Your task to perform on an android device: turn off sleep mode Image 0: 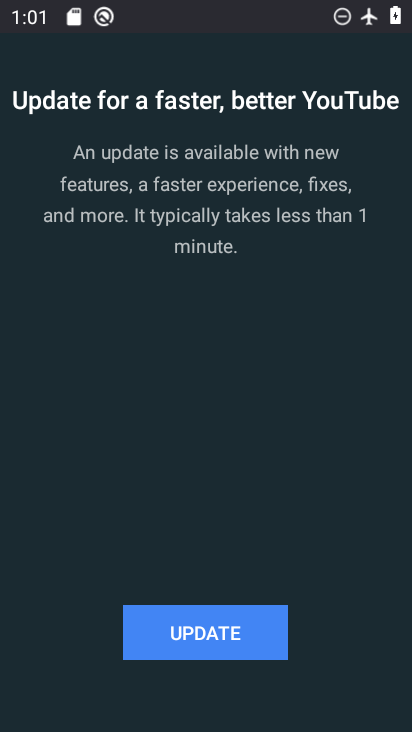
Step 0: press home button
Your task to perform on an android device: turn off sleep mode Image 1: 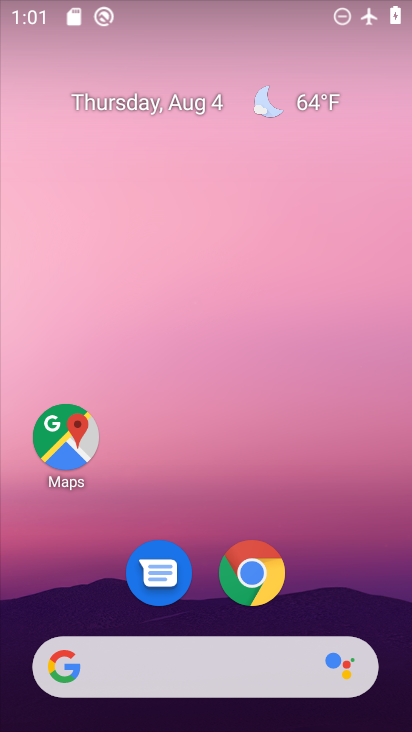
Step 1: drag from (320, 555) to (338, 153)
Your task to perform on an android device: turn off sleep mode Image 2: 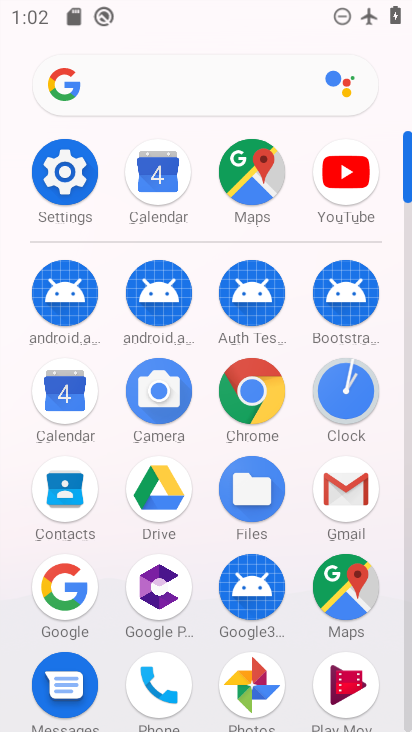
Step 2: click (59, 168)
Your task to perform on an android device: turn off sleep mode Image 3: 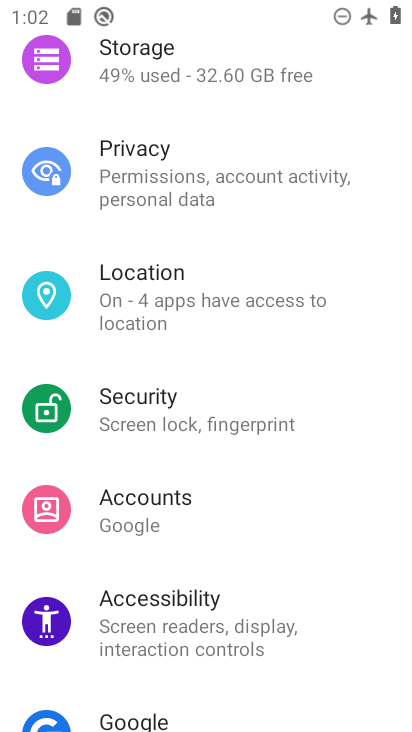
Step 3: drag from (272, 112) to (227, 445)
Your task to perform on an android device: turn off sleep mode Image 4: 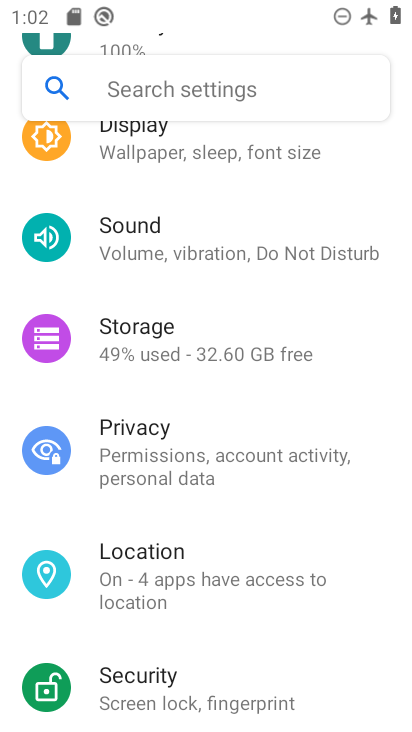
Step 4: drag from (241, 196) to (236, 506)
Your task to perform on an android device: turn off sleep mode Image 5: 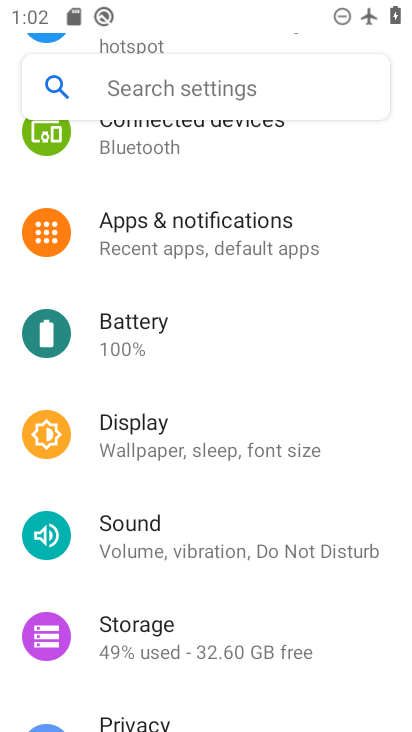
Step 5: drag from (234, 203) to (219, 480)
Your task to perform on an android device: turn off sleep mode Image 6: 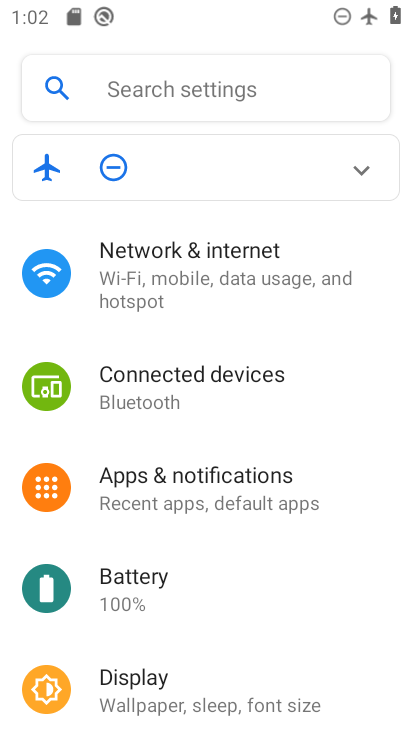
Step 6: click (151, 680)
Your task to perform on an android device: turn off sleep mode Image 7: 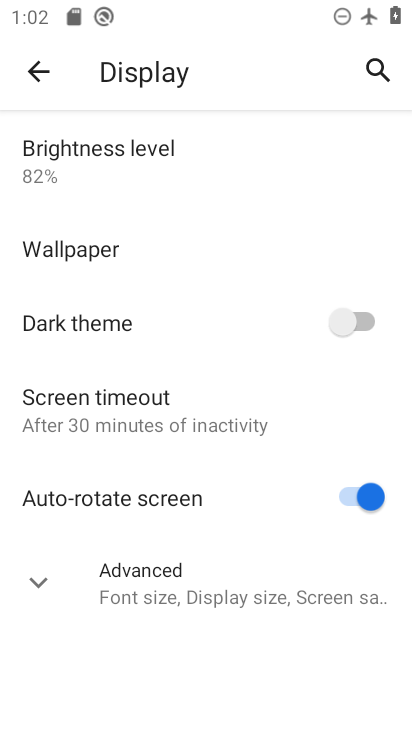
Step 7: click (252, 420)
Your task to perform on an android device: turn off sleep mode Image 8: 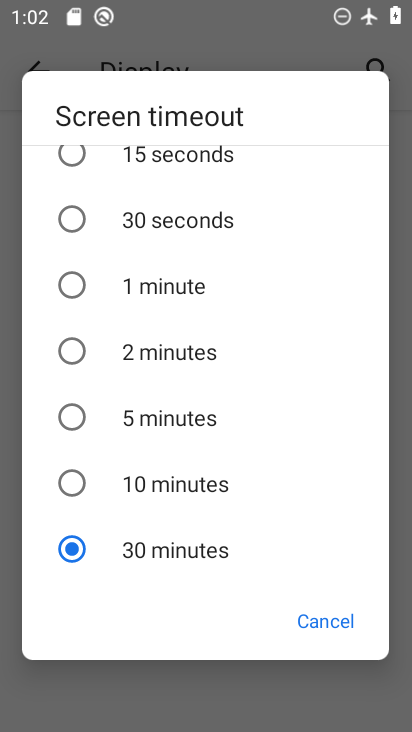
Step 8: task complete